Your task to perform on an android device: Open Google Chrome and click the shortcut for Amazon.com Image 0: 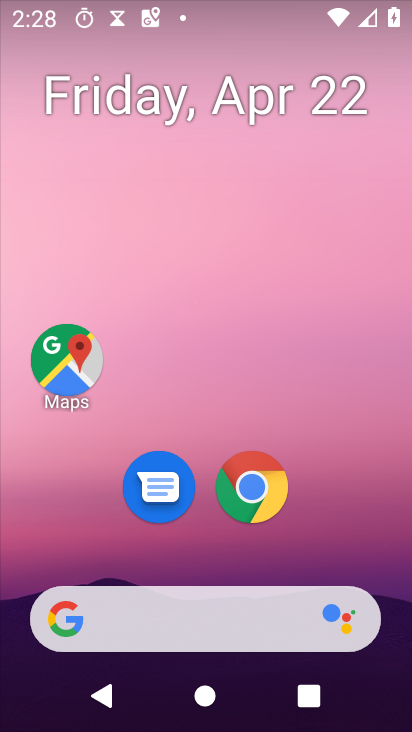
Step 0: drag from (141, 623) to (304, 99)
Your task to perform on an android device: Open Google Chrome and click the shortcut for Amazon.com Image 1: 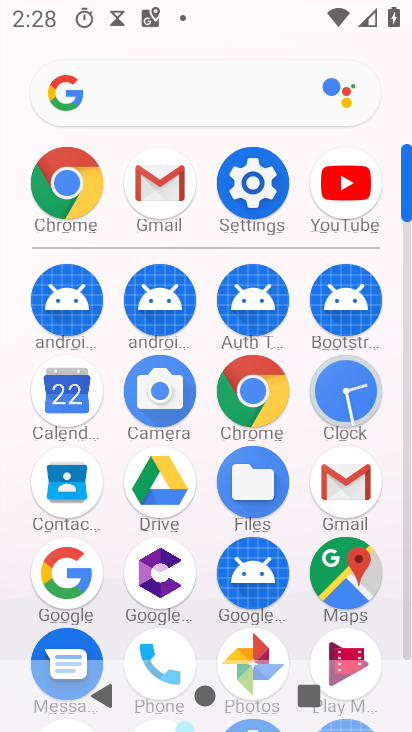
Step 1: click (77, 197)
Your task to perform on an android device: Open Google Chrome and click the shortcut for Amazon.com Image 2: 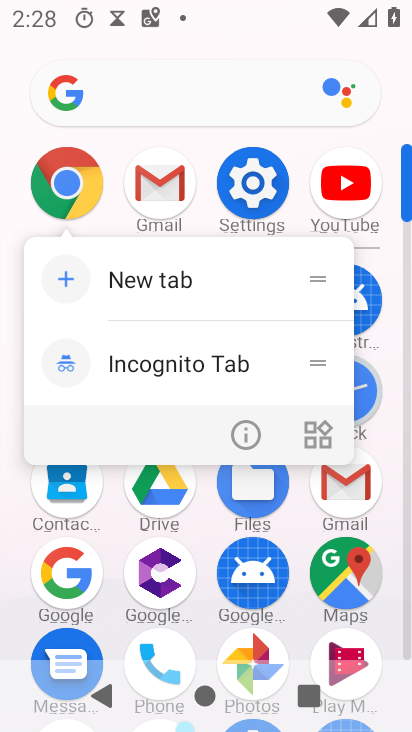
Step 2: click (61, 194)
Your task to perform on an android device: Open Google Chrome and click the shortcut for Amazon.com Image 3: 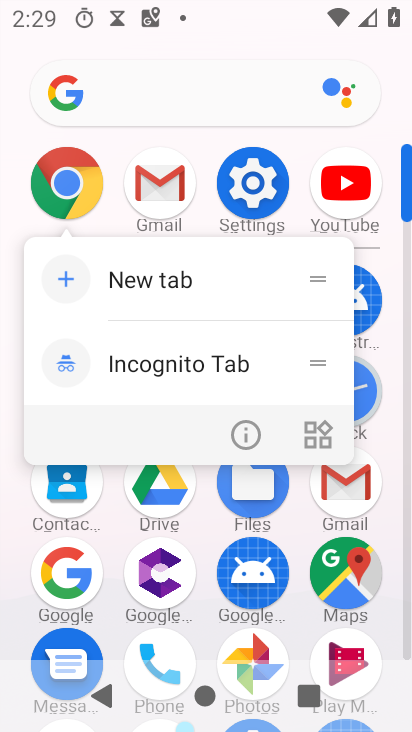
Step 3: click (69, 189)
Your task to perform on an android device: Open Google Chrome and click the shortcut for Amazon.com Image 4: 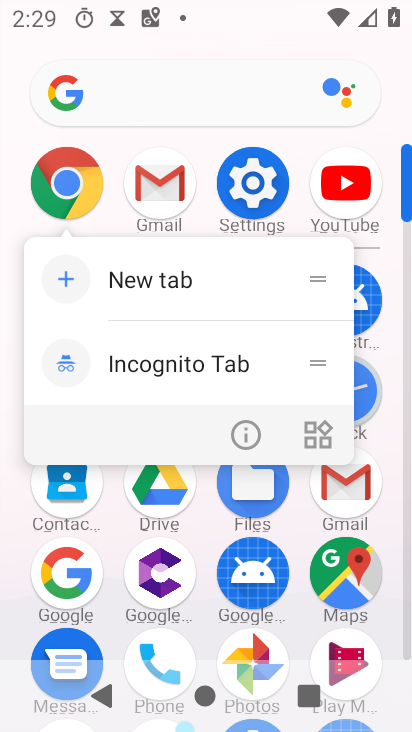
Step 4: click (59, 195)
Your task to perform on an android device: Open Google Chrome and click the shortcut for Amazon.com Image 5: 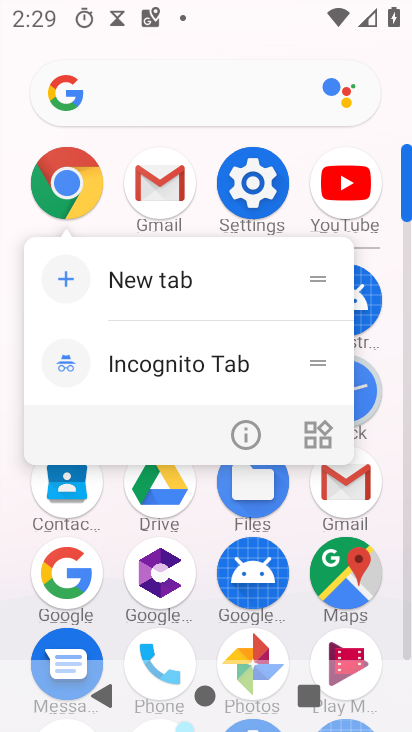
Step 5: click (68, 192)
Your task to perform on an android device: Open Google Chrome and click the shortcut for Amazon.com Image 6: 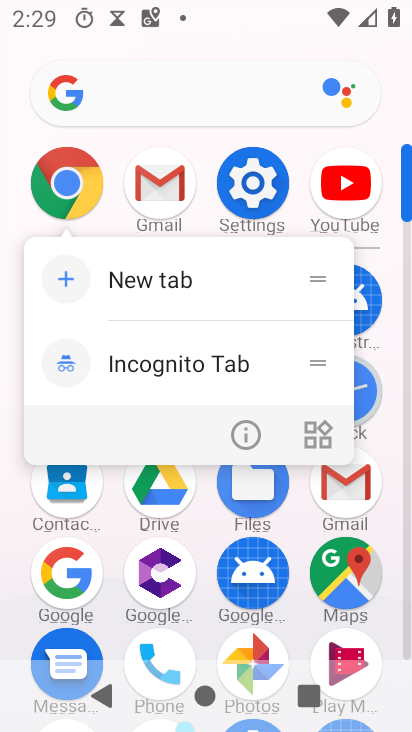
Step 6: click (69, 194)
Your task to perform on an android device: Open Google Chrome and click the shortcut for Amazon.com Image 7: 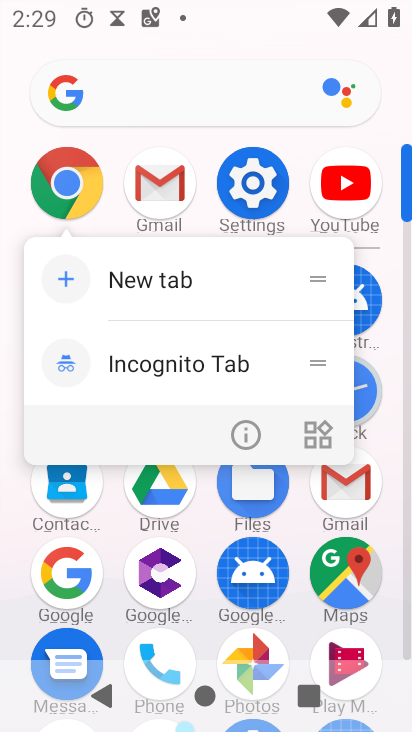
Step 7: click (65, 195)
Your task to perform on an android device: Open Google Chrome and click the shortcut for Amazon.com Image 8: 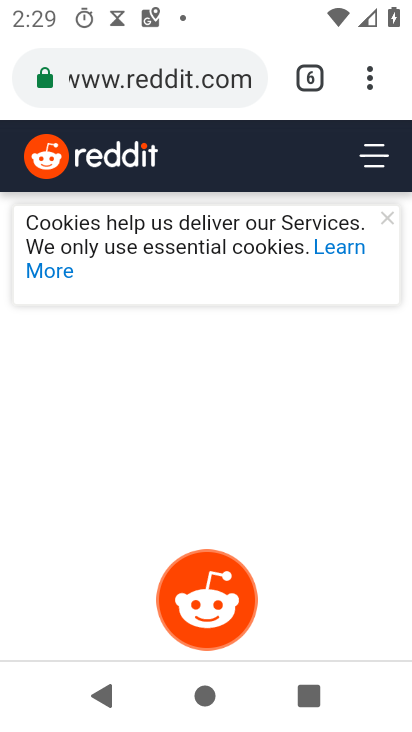
Step 8: drag from (368, 78) to (108, 155)
Your task to perform on an android device: Open Google Chrome and click the shortcut for Amazon.com Image 9: 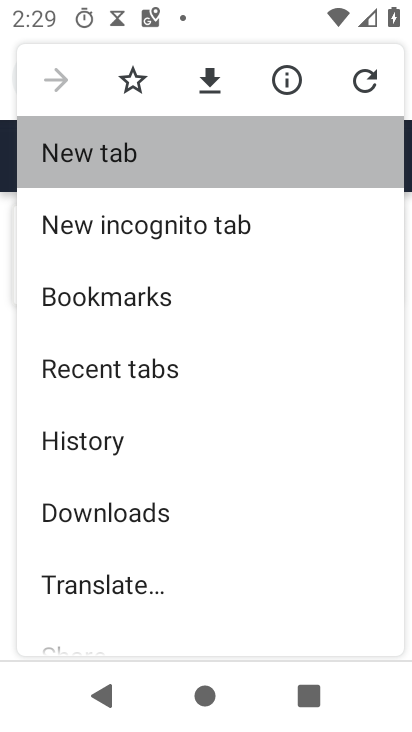
Step 9: click (108, 155)
Your task to perform on an android device: Open Google Chrome and click the shortcut for Amazon.com Image 10: 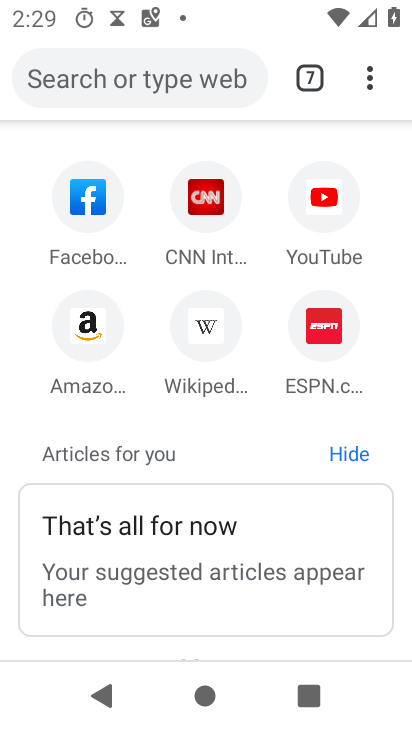
Step 10: click (91, 329)
Your task to perform on an android device: Open Google Chrome and click the shortcut for Amazon.com Image 11: 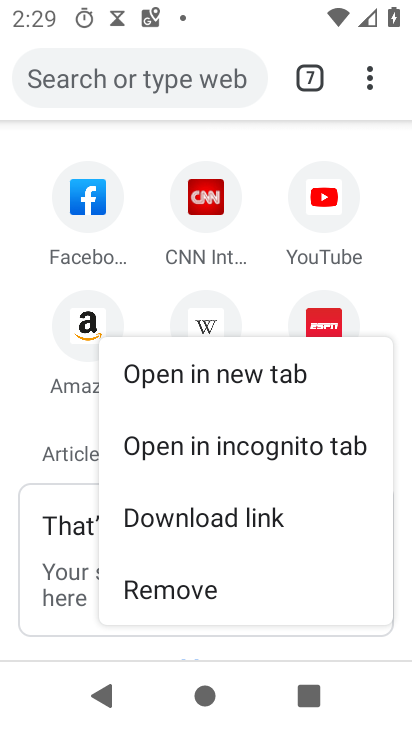
Step 11: click (75, 326)
Your task to perform on an android device: Open Google Chrome and click the shortcut for Amazon.com Image 12: 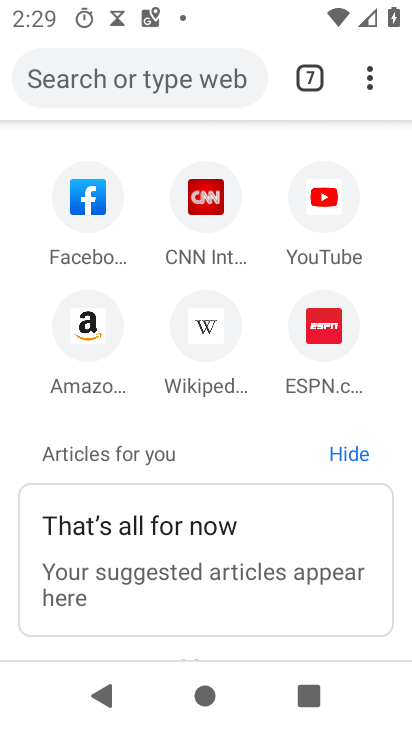
Step 12: click (89, 328)
Your task to perform on an android device: Open Google Chrome and click the shortcut for Amazon.com Image 13: 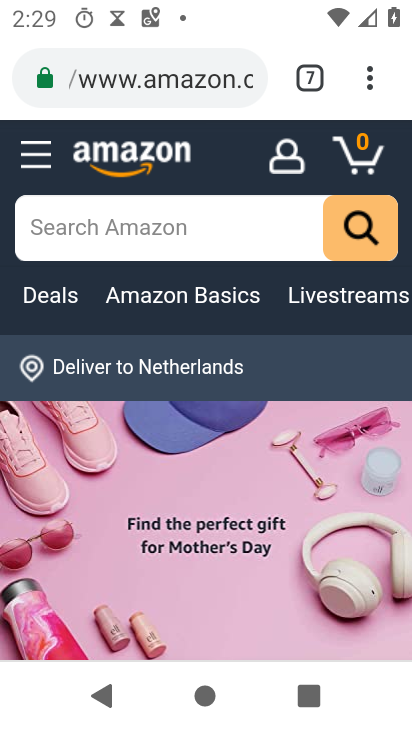
Step 13: task complete